Your task to perform on an android device: Search for Mexican restaurants on Maps Image 0: 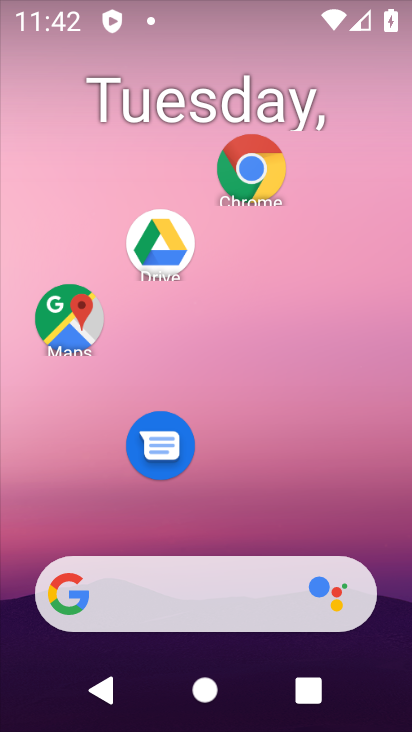
Step 0: click (81, 327)
Your task to perform on an android device: Search for Mexican restaurants on Maps Image 1: 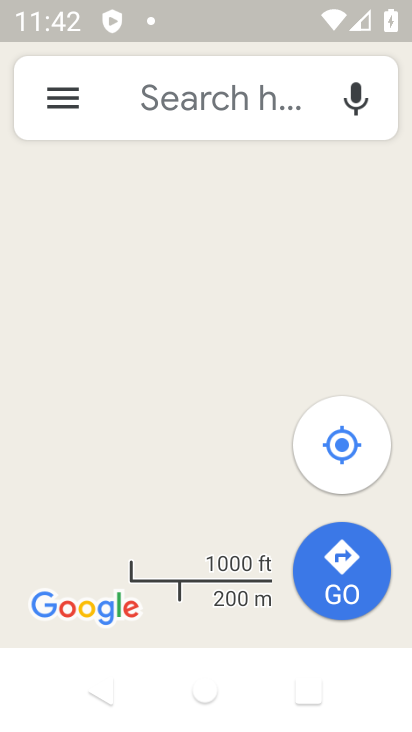
Step 1: click (168, 113)
Your task to perform on an android device: Search for Mexican restaurants on Maps Image 2: 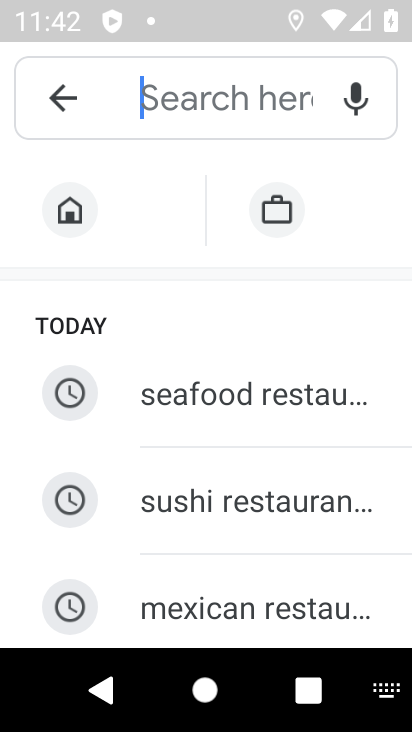
Step 2: type "Mexican restaurants"
Your task to perform on an android device: Search for Mexican restaurants on Maps Image 3: 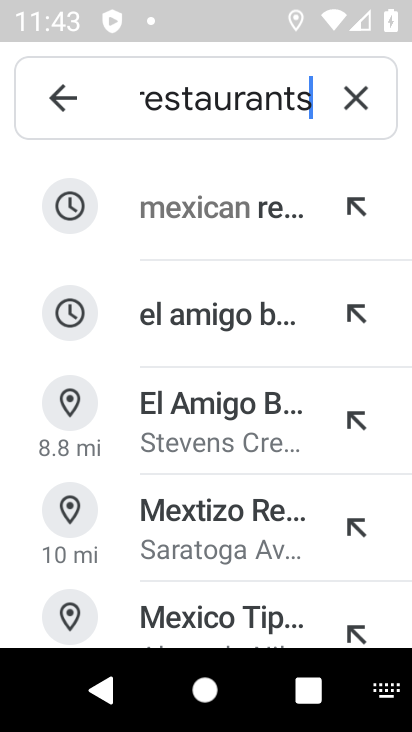
Step 3: click (214, 209)
Your task to perform on an android device: Search for Mexican restaurants on Maps Image 4: 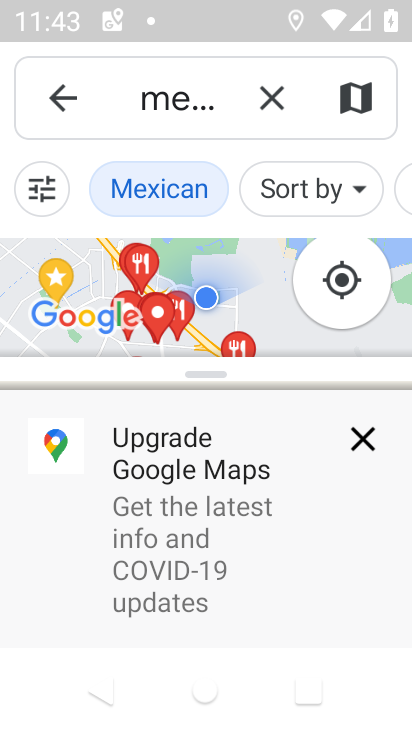
Step 4: task complete